Your task to perform on an android device: manage bookmarks in the chrome app Image 0: 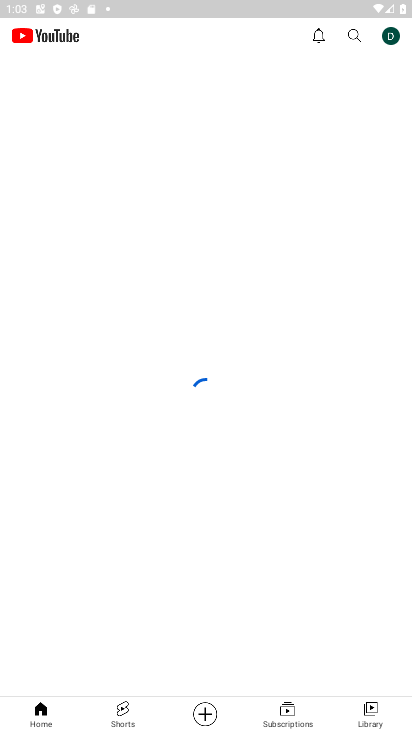
Step 0: press home button
Your task to perform on an android device: manage bookmarks in the chrome app Image 1: 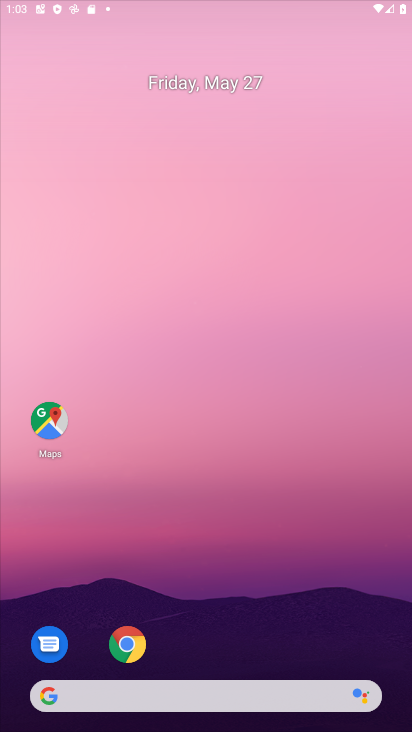
Step 1: drag from (322, 642) to (281, 46)
Your task to perform on an android device: manage bookmarks in the chrome app Image 2: 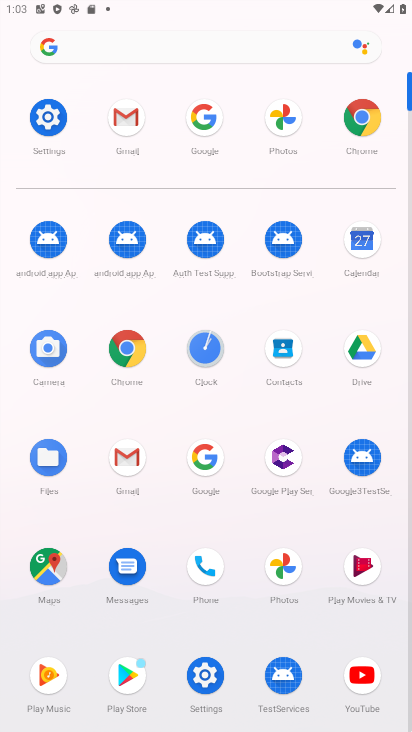
Step 2: click (364, 110)
Your task to perform on an android device: manage bookmarks in the chrome app Image 3: 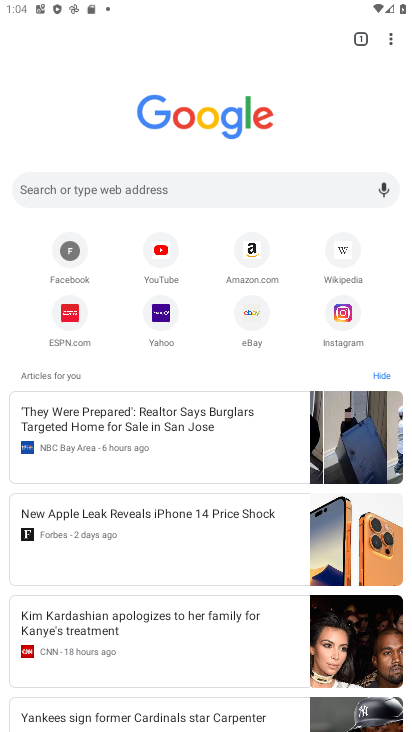
Step 3: task complete